Your task to perform on an android device: Search for sushi restaurants on Maps Image 0: 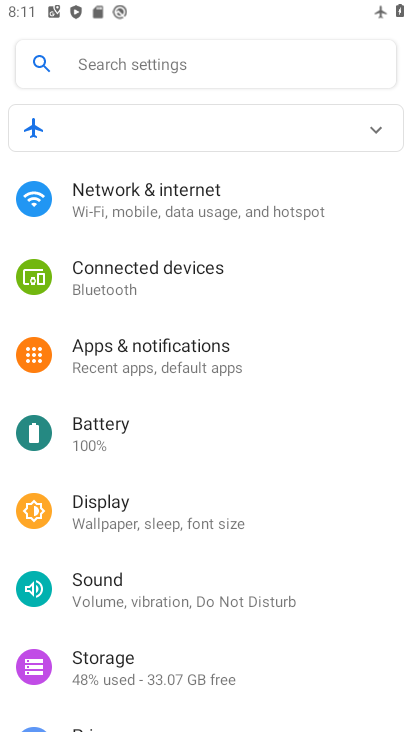
Step 0: press home button
Your task to perform on an android device: Search for sushi restaurants on Maps Image 1: 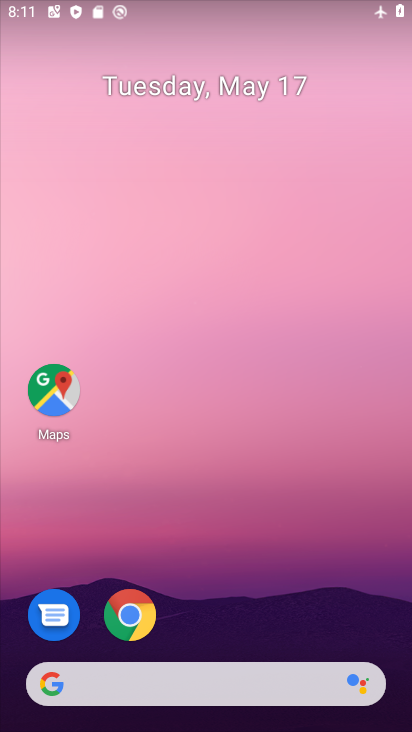
Step 1: click (56, 388)
Your task to perform on an android device: Search for sushi restaurants on Maps Image 2: 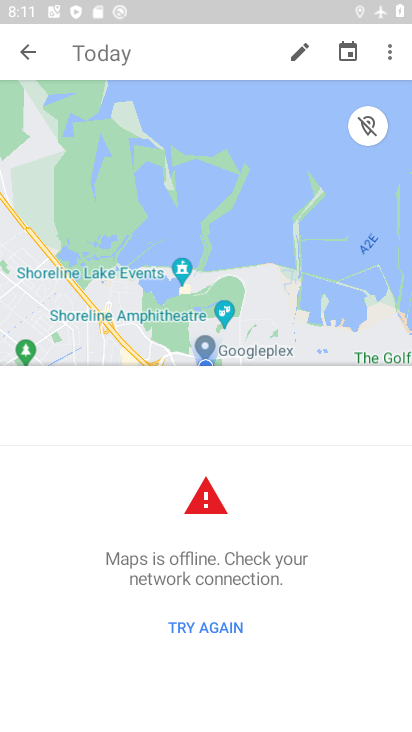
Step 2: click (44, 50)
Your task to perform on an android device: Search for sushi restaurants on Maps Image 3: 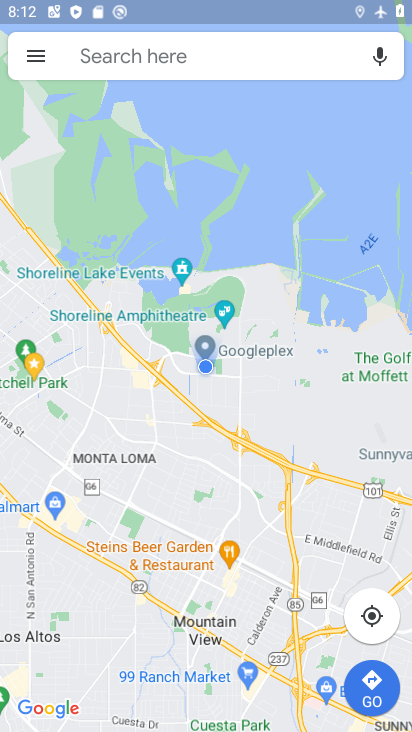
Step 3: click (204, 47)
Your task to perform on an android device: Search for sushi restaurants on Maps Image 4: 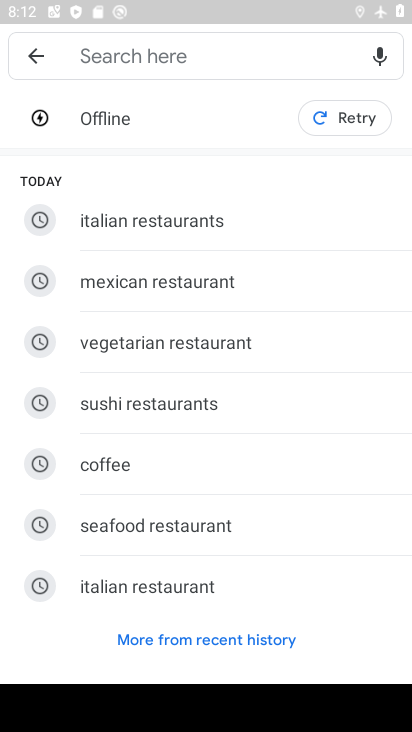
Step 4: type "sushi restaurants "
Your task to perform on an android device: Search for sushi restaurants on Maps Image 5: 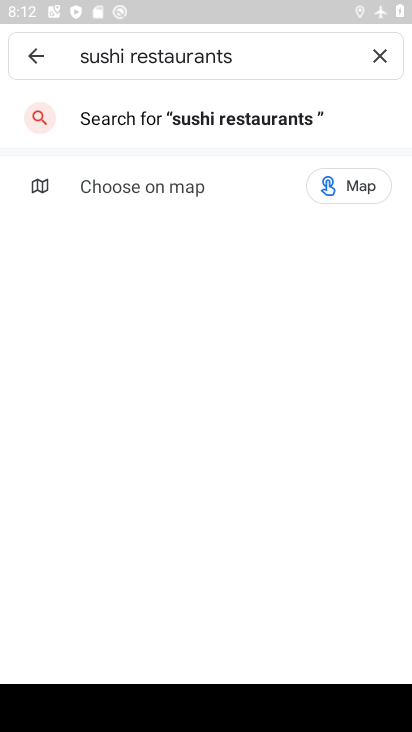
Step 5: click (178, 113)
Your task to perform on an android device: Search for sushi restaurants on Maps Image 6: 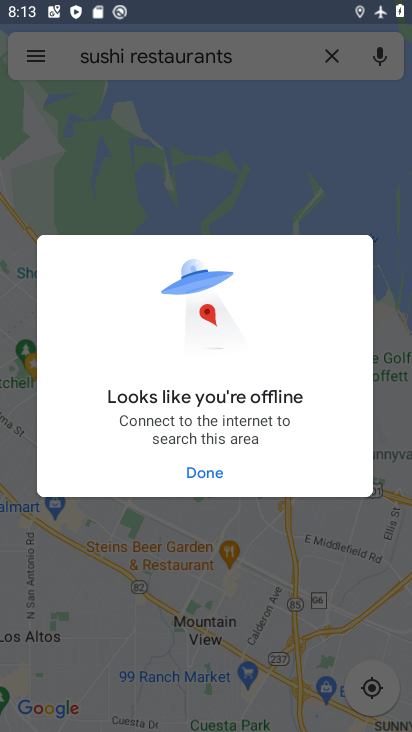
Step 6: task complete